Your task to perform on an android device: open the mobile data screen to see how much data has been used Image 0: 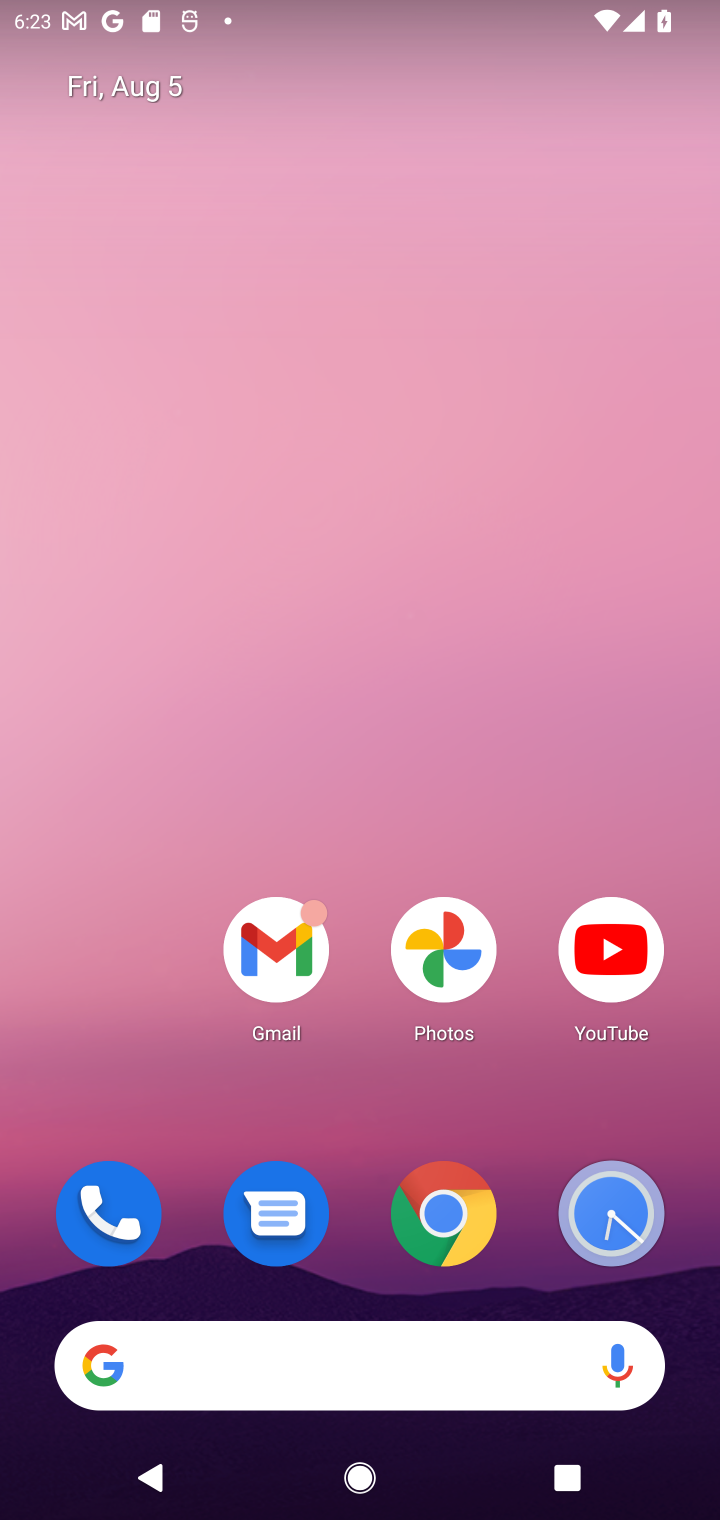
Step 0: drag from (374, 1301) to (399, 216)
Your task to perform on an android device: open the mobile data screen to see how much data has been used Image 1: 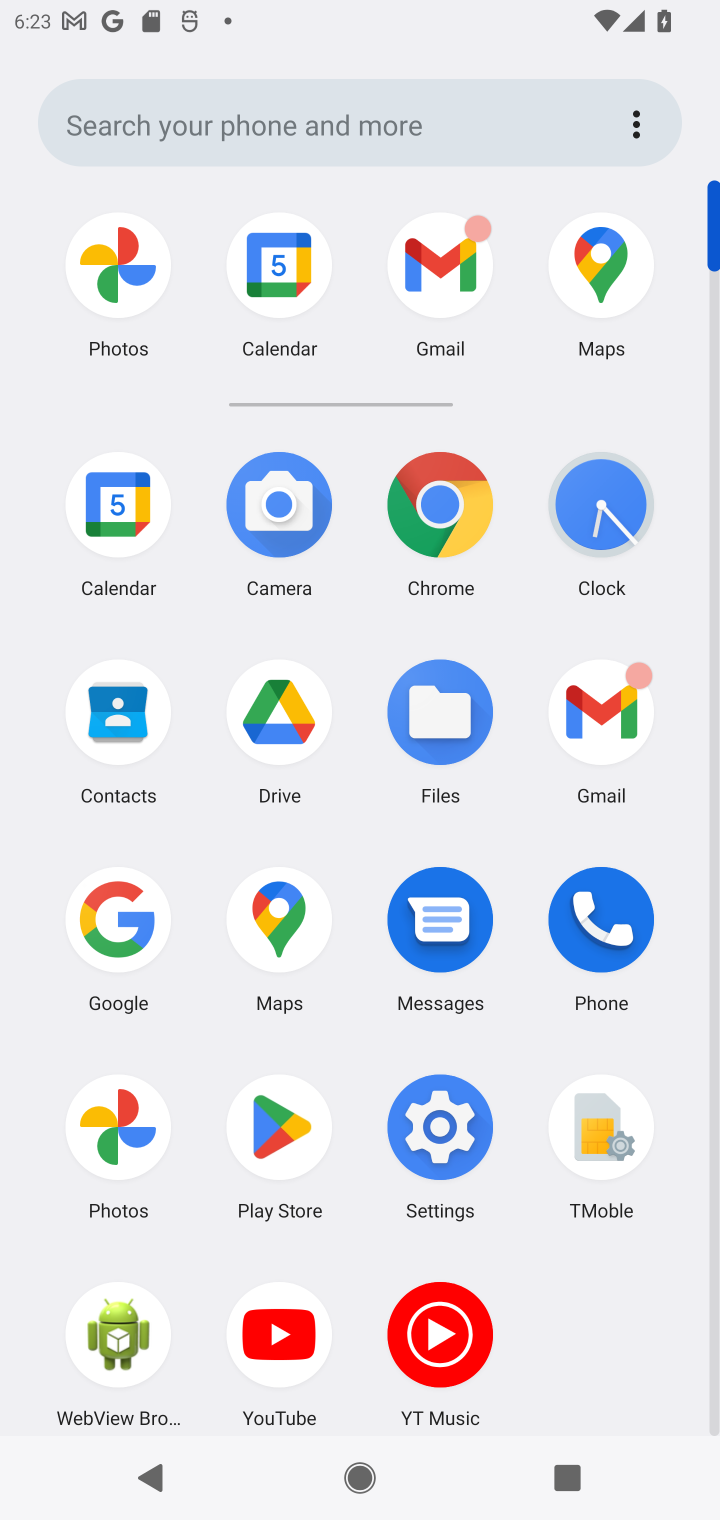
Step 1: click (435, 1148)
Your task to perform on an android device: open the mobile data screen to see how much data has been used Image 2: 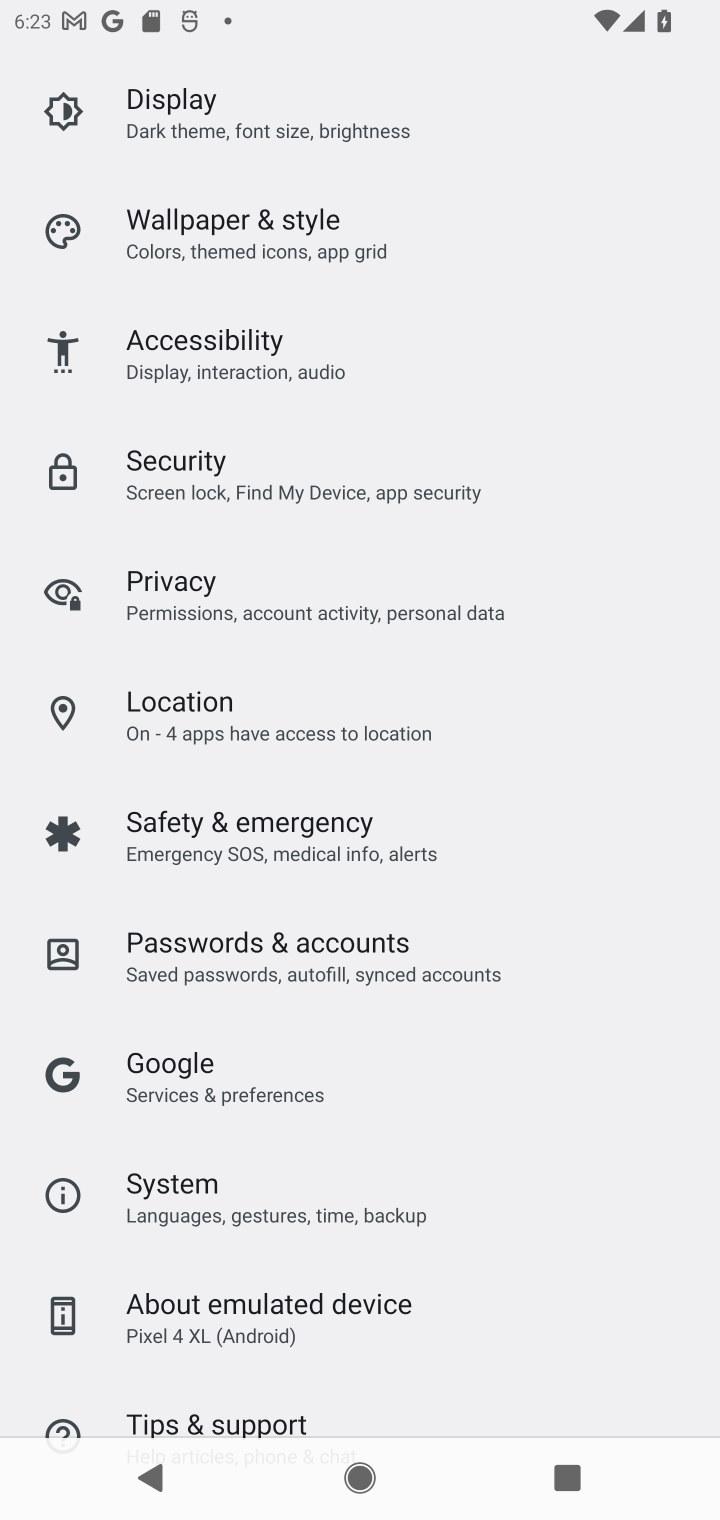
Step 2: drag from (223, 117) to (216, 1232)
Your task to perform on an android device: open the mobile data screen to see how much data has been used Image 3: 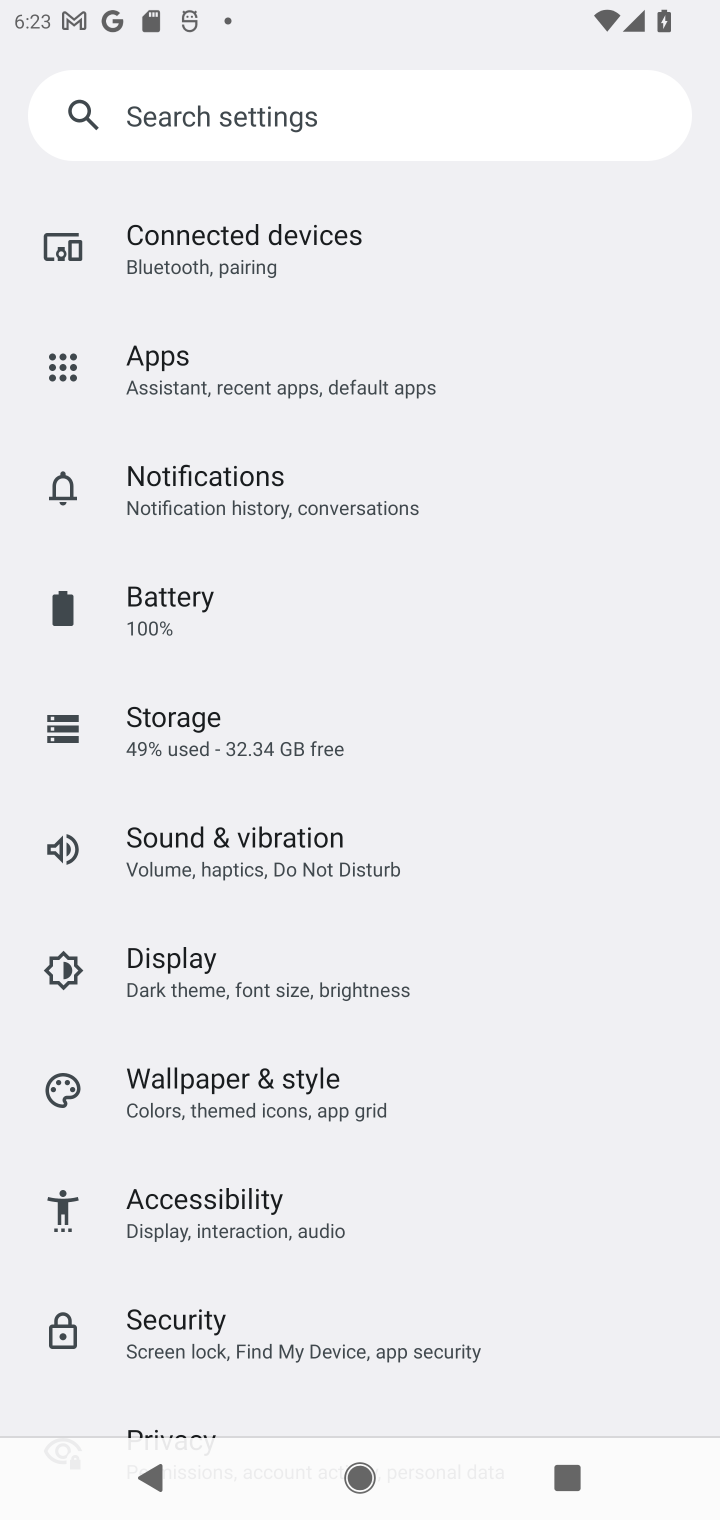
Step 3: drag from (233, 276) to (323, 1222)
Your task to perform on an android device: open the mobile data screen to see how much data has been used Image 4: 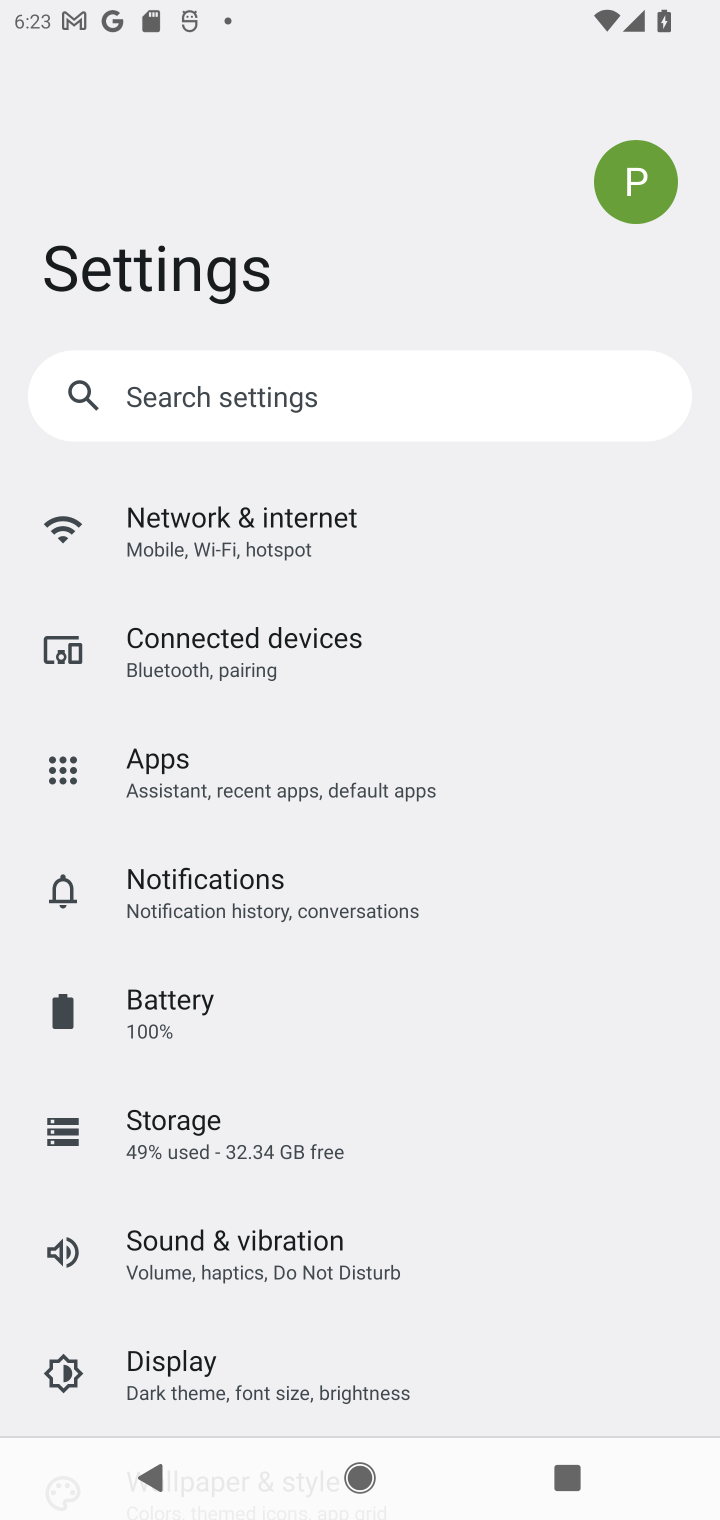
Step 4: click (269, 565)
Your task to perform on an android device: open the mobile data screen to see how much data has been used Image 5: 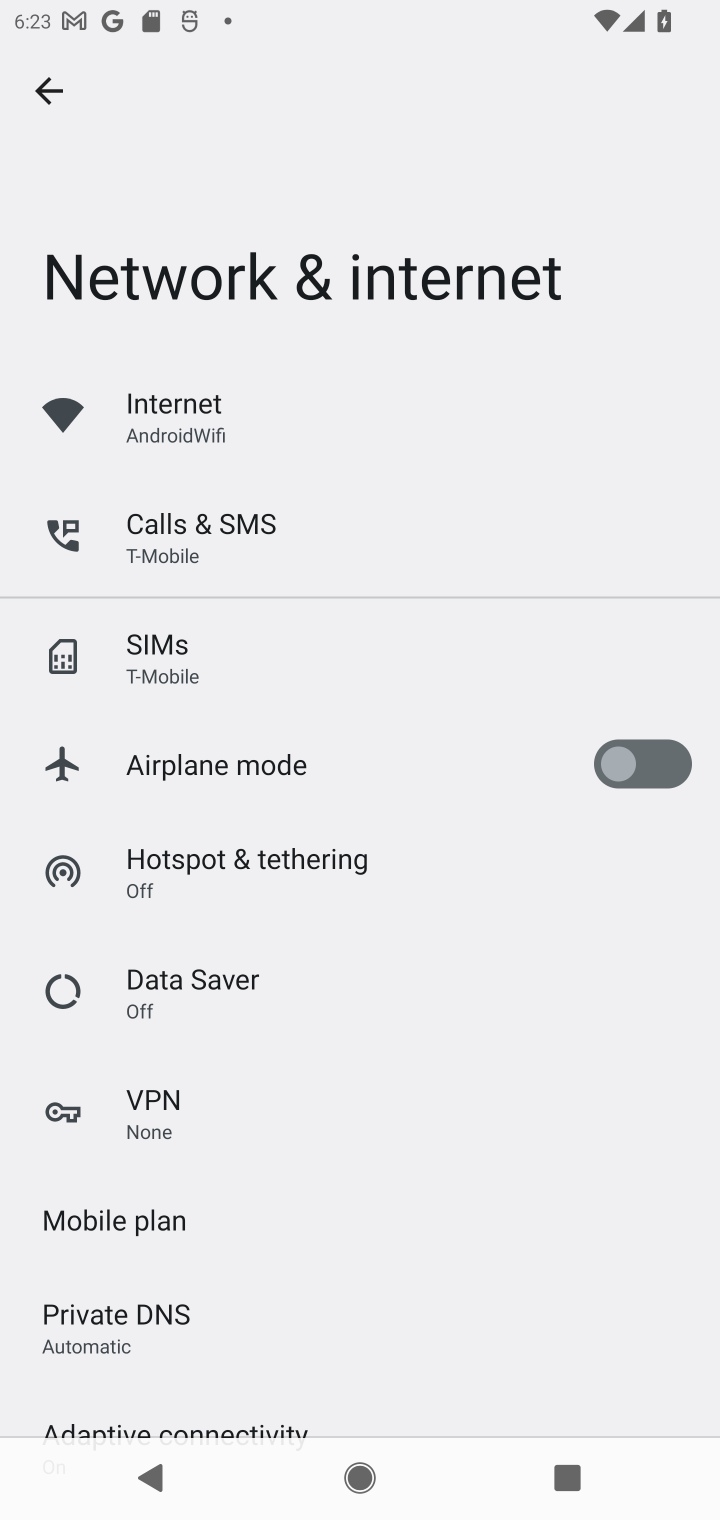
Step 5: task complete